Your task to perform on an android device: Open the stopwatch Image 0: 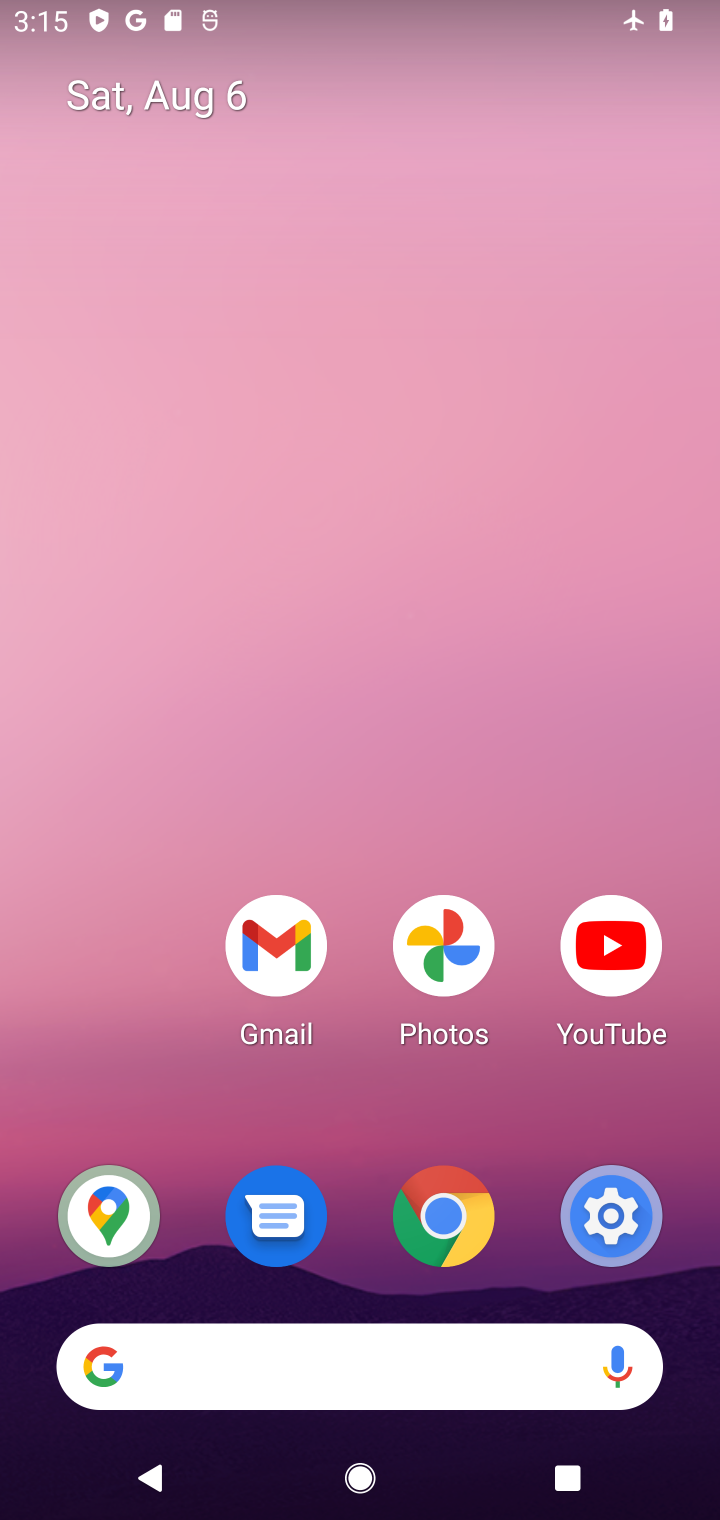
Step 0: drag from (534, 1169) to (373, 491)
Your task to perform on an android device: Open the stopwatch Image 1: 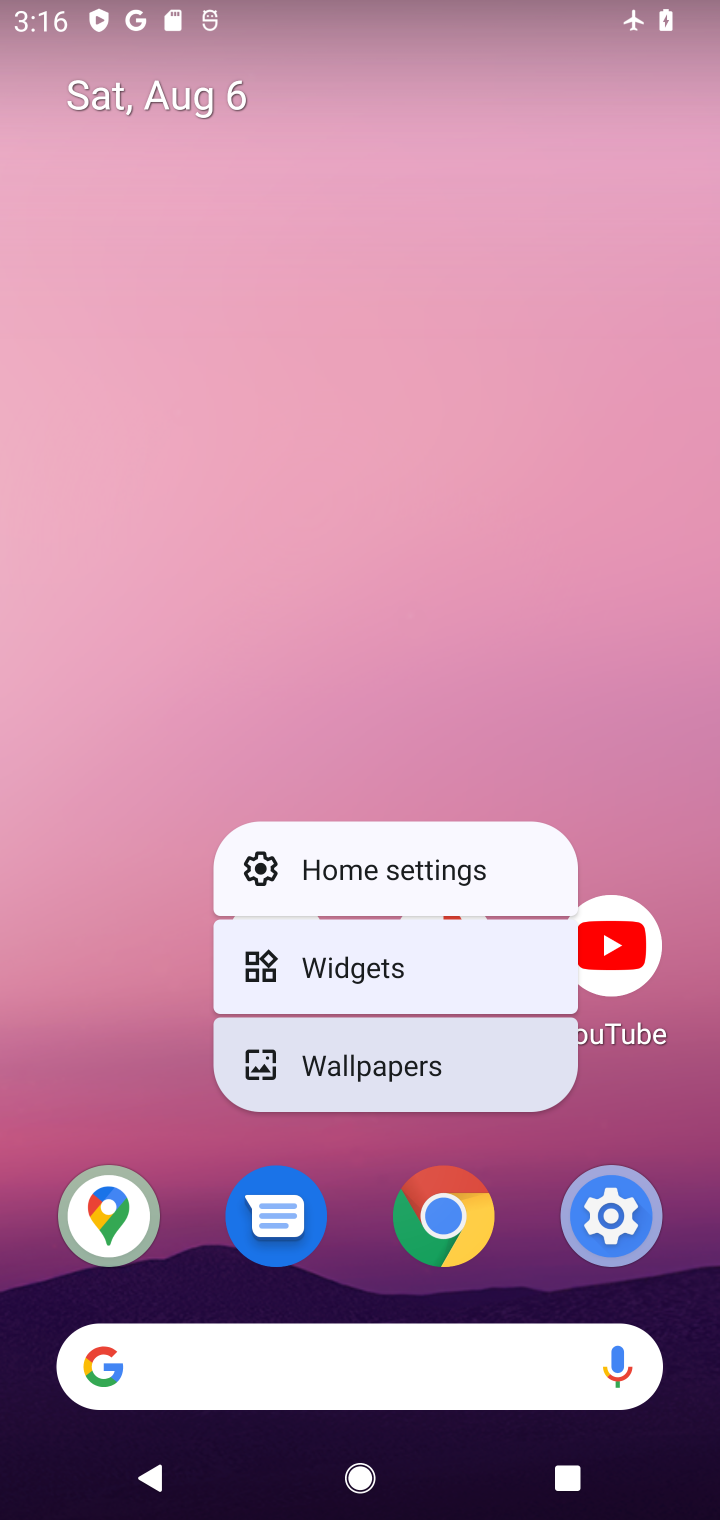
Step 1: drag from (356, 1293) to (17, 282)
Your task to perform on an android device: Open the stopwatch Image 2: 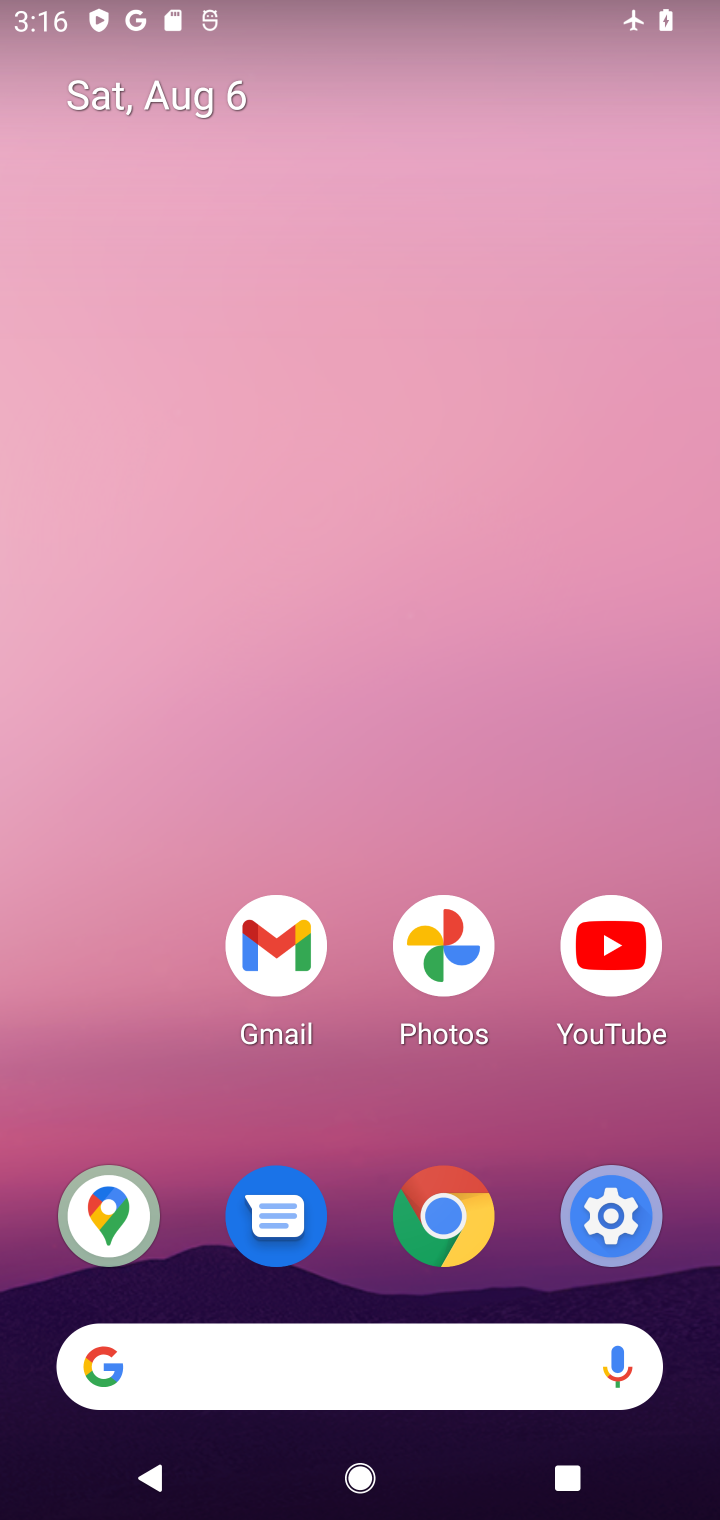
Step 2: drag from (357, 1293) to (97, 9)
Your task to perform on an android device: Open the stopwatch Image 3: 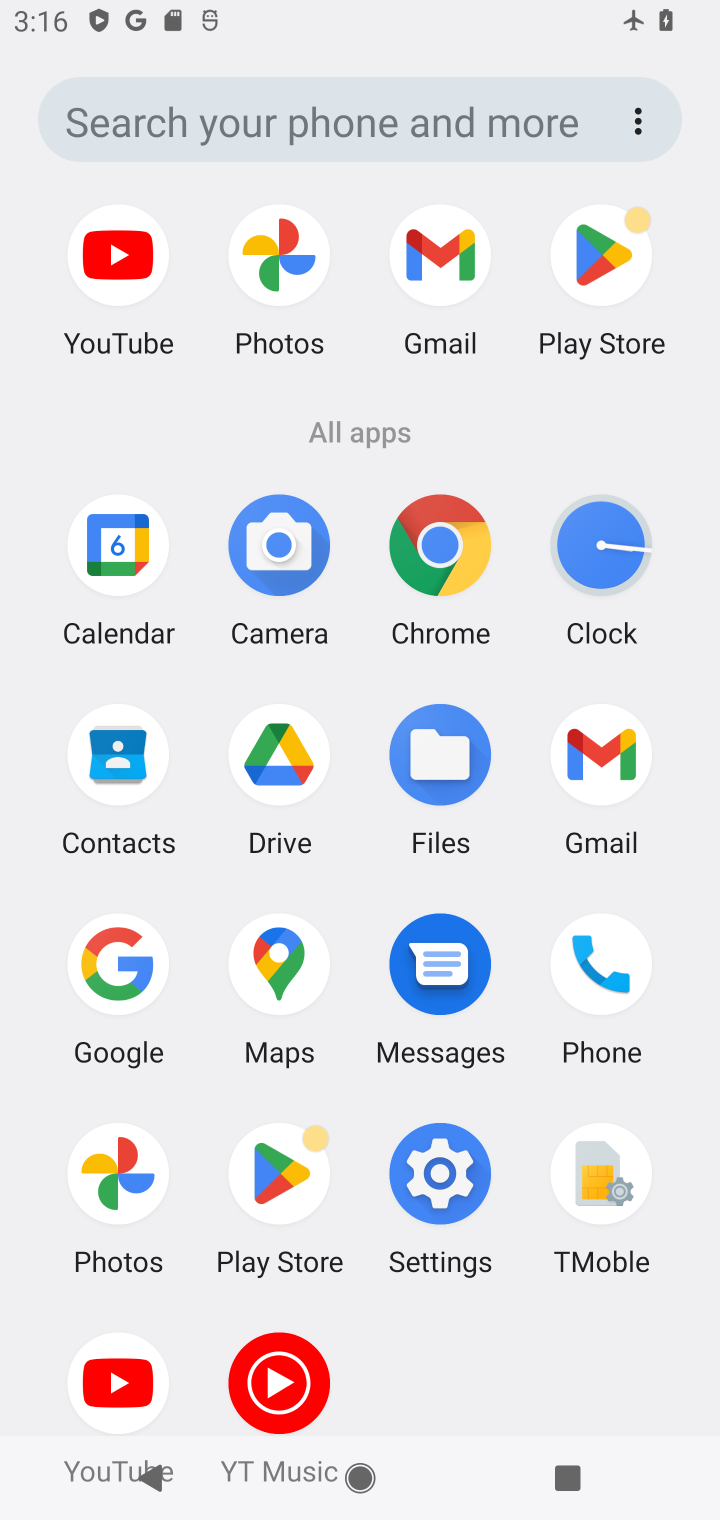
Step 3: click (627, 549)
Your task to perform on an android device: Open the stopwatch Image 4: 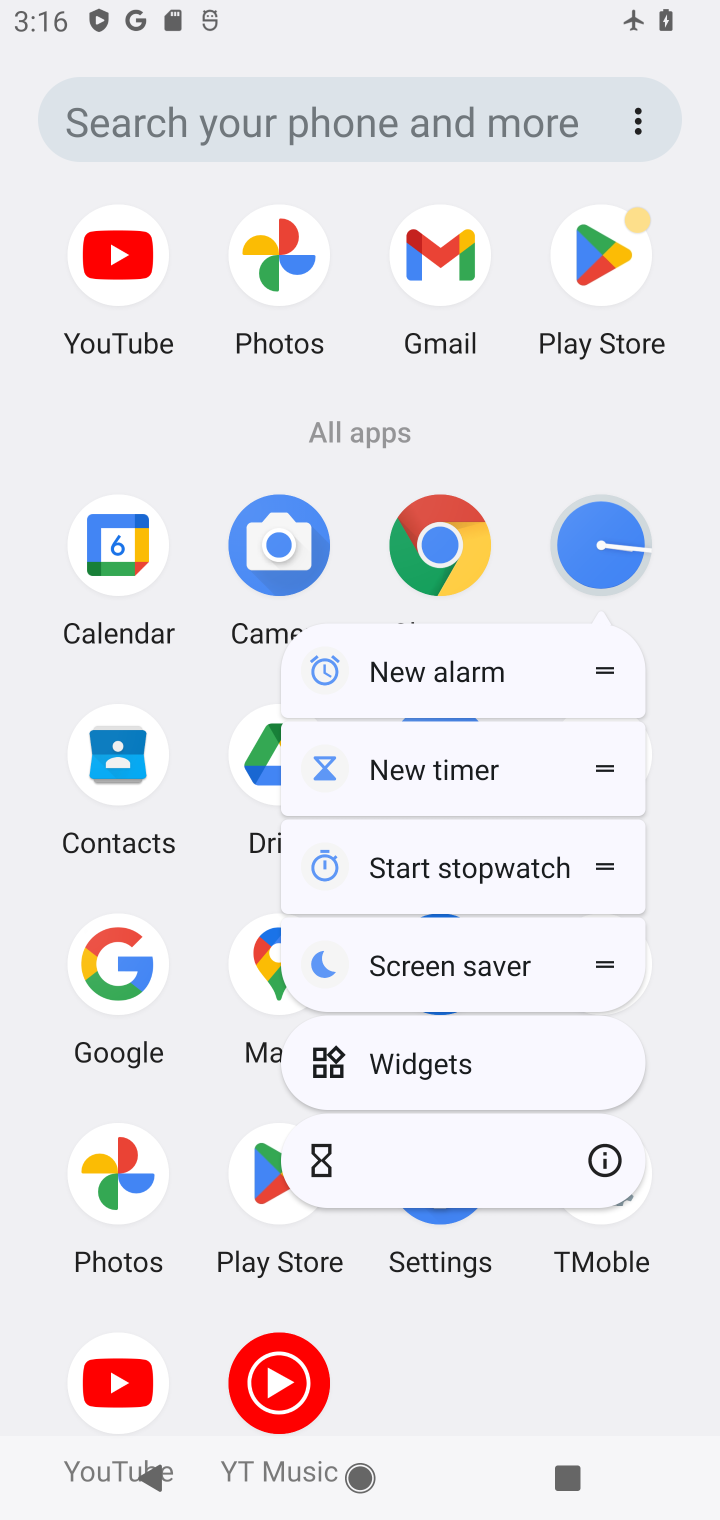
Step 4: click (626, 547)
Your task to perform on an android device: Open the stopwatch Image 5: 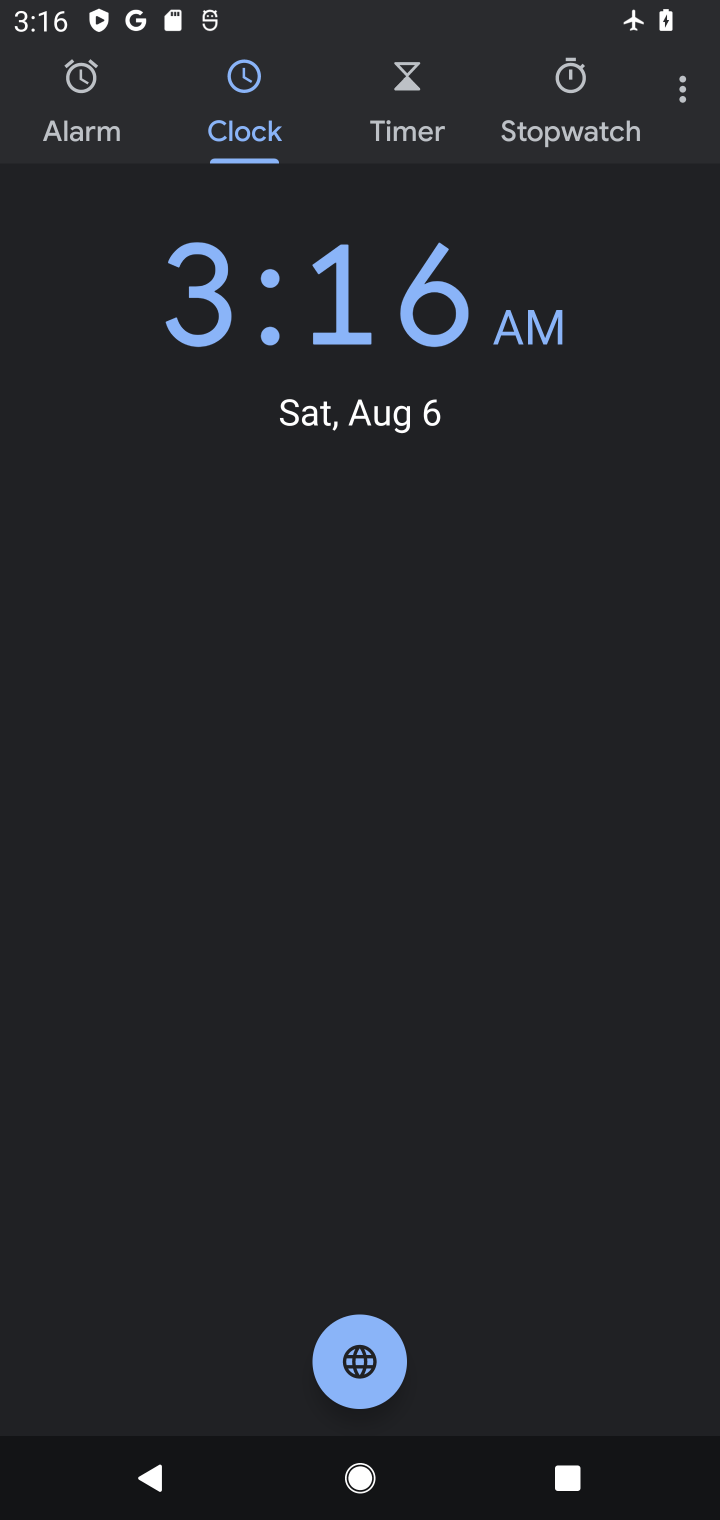
Step 5: click (573, 101)
Your task to perform on an android device: Open the stopwatch Image 6: 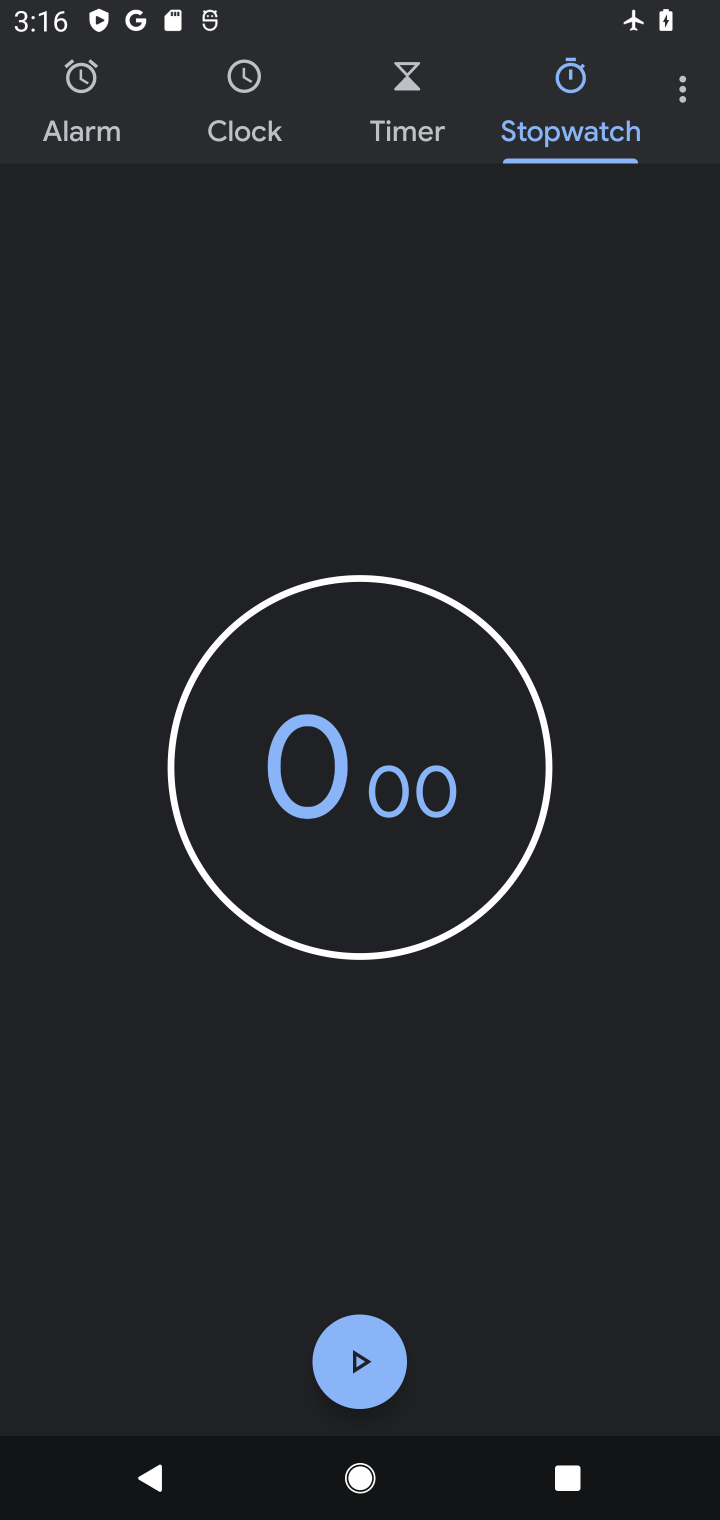
Step 6: task complete